Your task to perform on an android device: change notification settings in the gmail app Image 0: 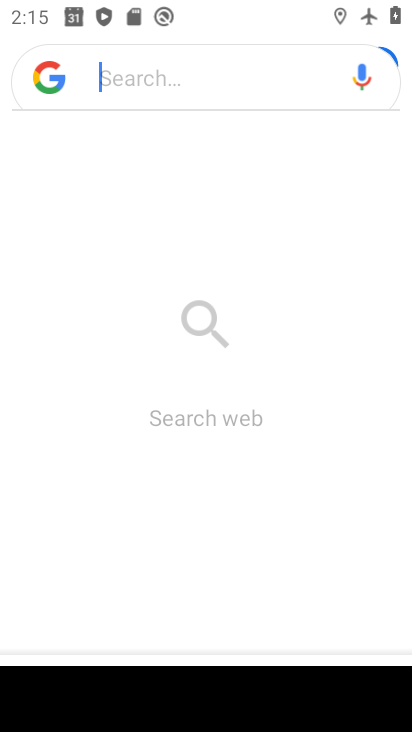
Step 0: press home button
Your task to perform on an android device: change notification settings in the gmail app Image 1: 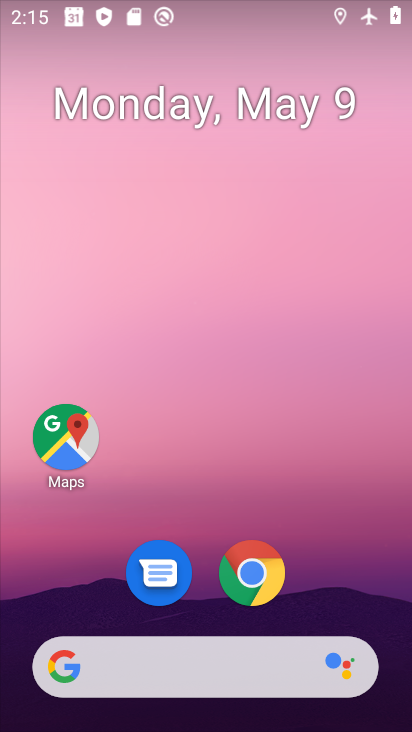
Step 1: drag from (350, 612) to (236, 12)
Your task to perform on an android device: change notification settings in the gmail app Image 2: 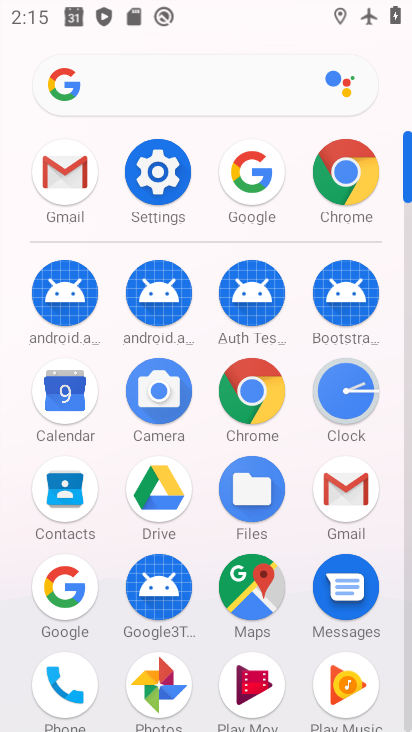
Step 2: click (353, 469)
Your task to perform on an android device: change notification settings in the gmail app Image 3: 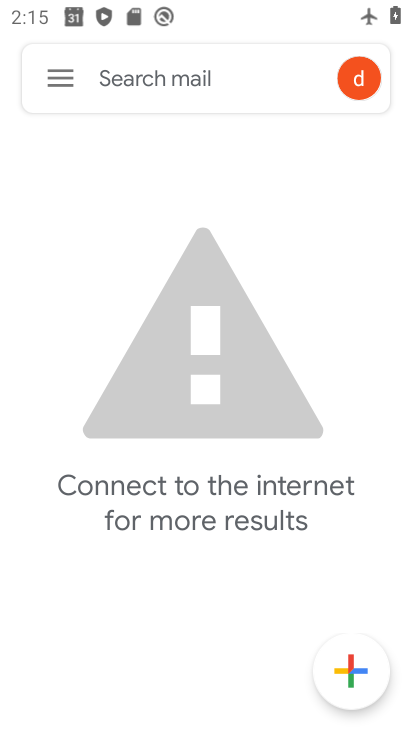
Step 3: press home button
Your task to perform on an android device: change notification settings in the gmail app Image 4: 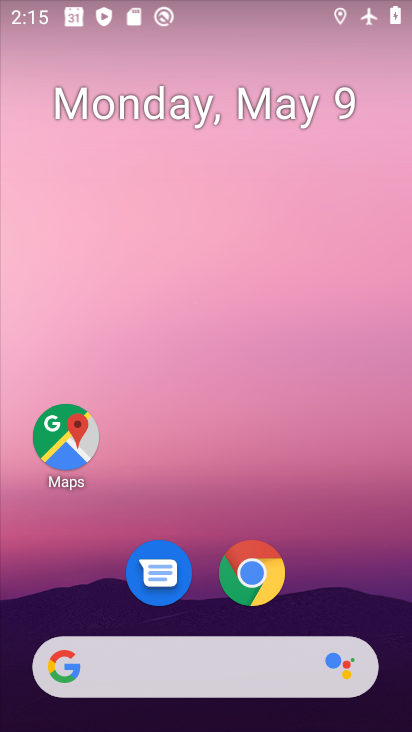
Step 4: drag from (358, 663) to (279, 66)
Your task to perform on an android device: change notification settings in the gmail app Image 5: 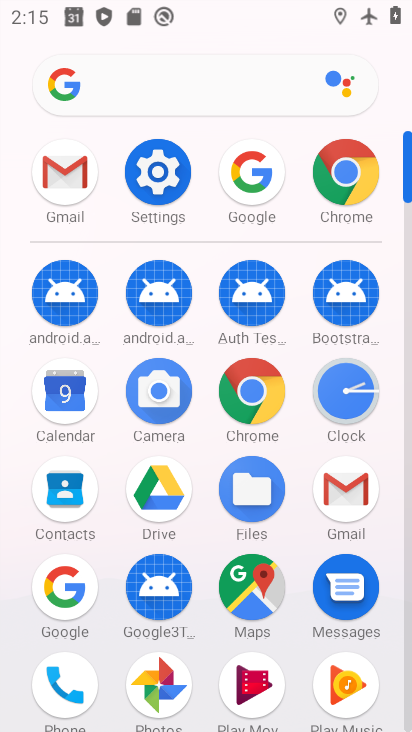
Step 5: click (55, 178)
Your task to perform on an android device: change notification settings in the gmail app Image 6: 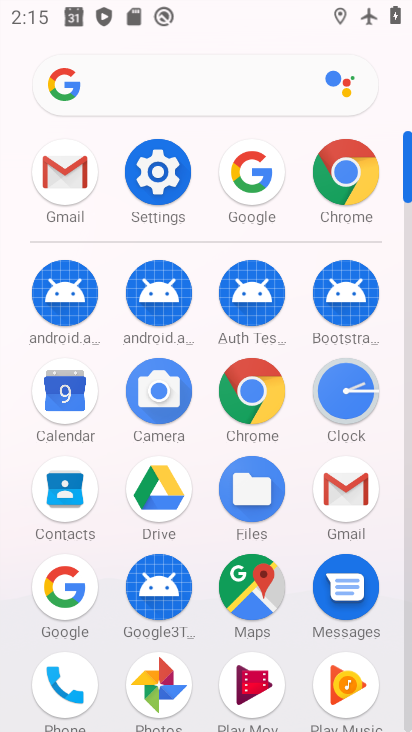
Step 6: click (61, 166)
Your task to perform on an android device: change notification settings in the gmail app Image 7: 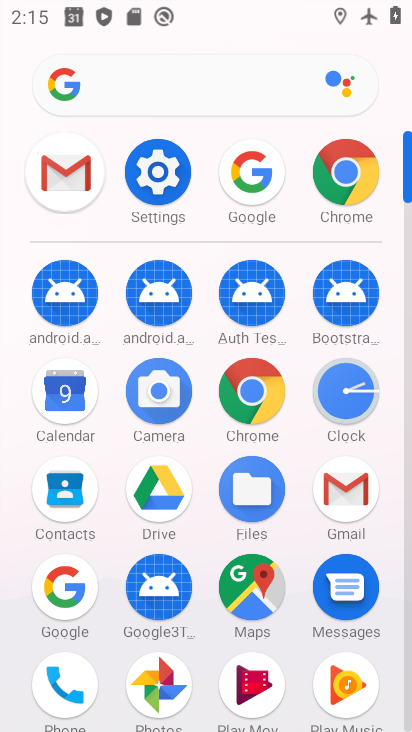
Step 7: click (62, 166)
Your task to perform on an android device: change notification settings in the gmail app Image 8: 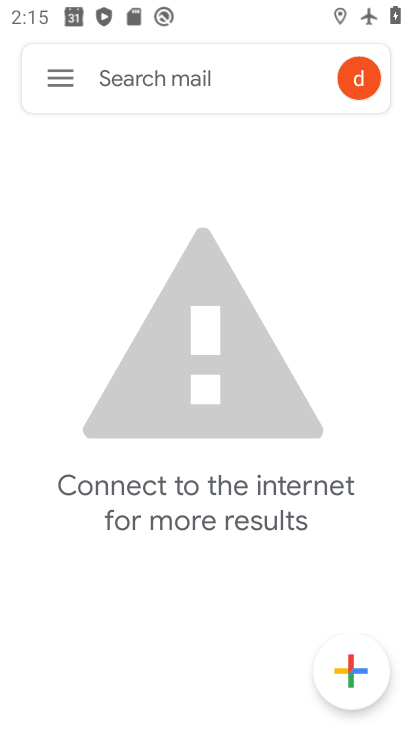
Step 8: click (62, 76)
Your task to perform on an android device: change notification settings in the gmail app Image 9: 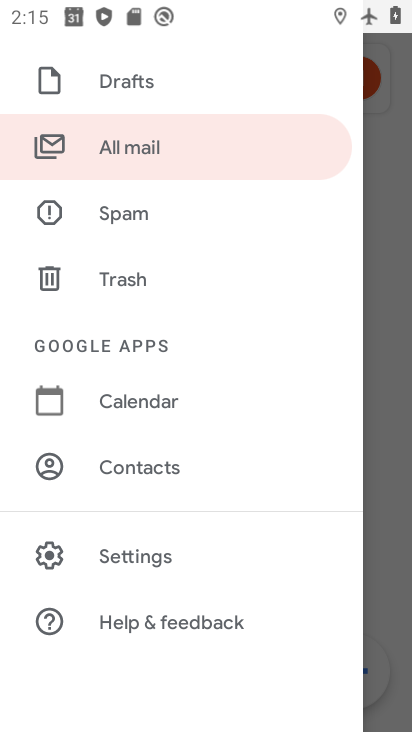
Step 9: click (132, 556)
Your task to perform on an android device: change notification settings in the gmail app Image 10: 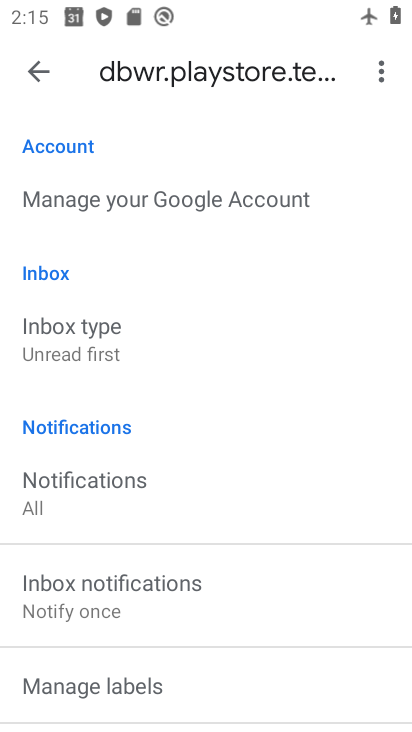
Step 10: click (95, 485)
Your task to perform on an android device: change notification settings in the gmail app Image 11: 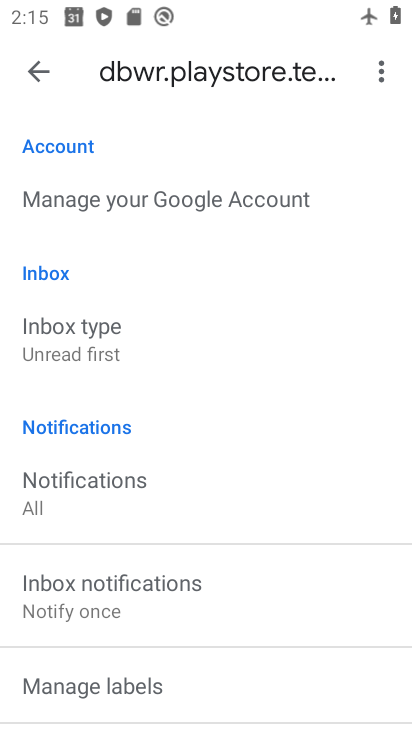
Step 11: click (93, 478)
Your task to perform on an android device: change notification settings in the gmail app Image 12: 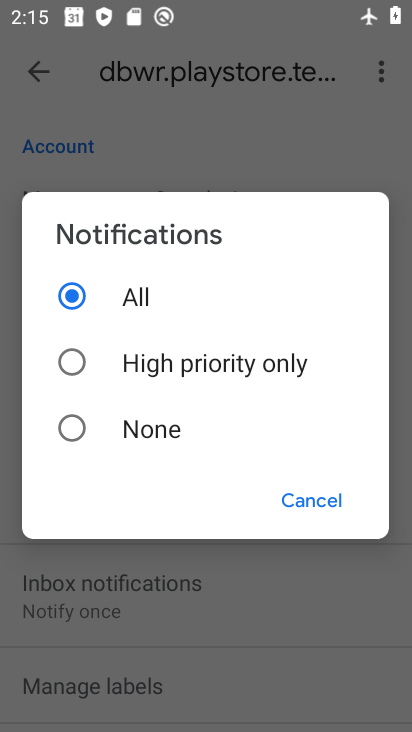
Step 12: click (75, 356)
Your task to perform on an android device: change notification settings in the gmail app Image 13: 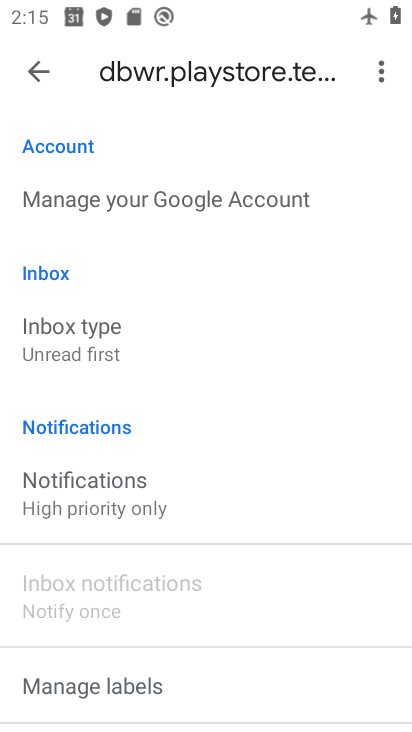
Step 13: task complete